Your task to perform on an android device: empty trash in google photos Image 0: 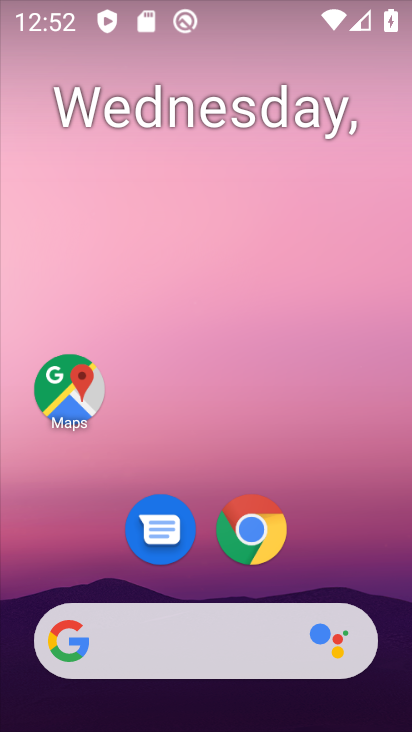
Step 0: drag from (334, 589) to (346, 96)
Your task to perform on an android device: empty trash in google photos Image 1: 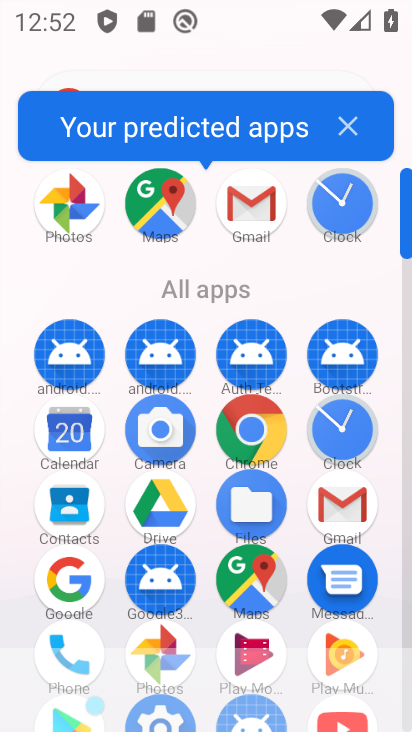
Step 1: drag from (308, 566) to (312, 246)
Your task to perform on an android device: empty trash in google photos Image 2: 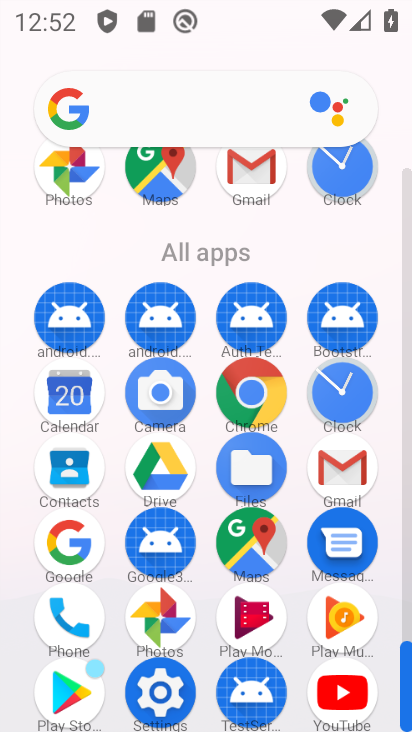
Step 2: click (155, 611)
Your task to perform on an android device: empty trash in google photos Image 3: 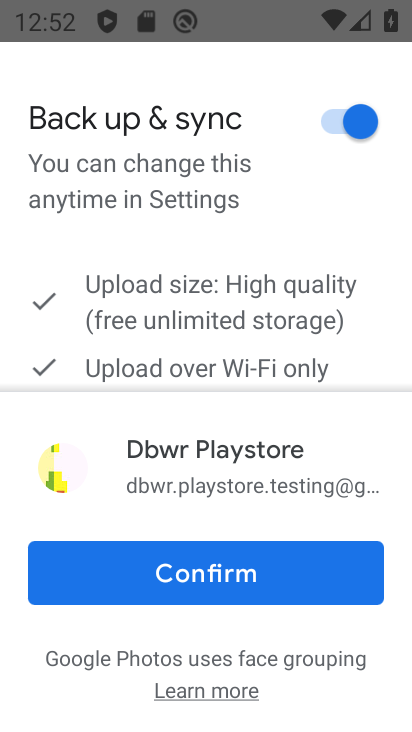
Step 3: click (199, 581)
Your task to perform on an android device: empty trash in google photos Image 4: 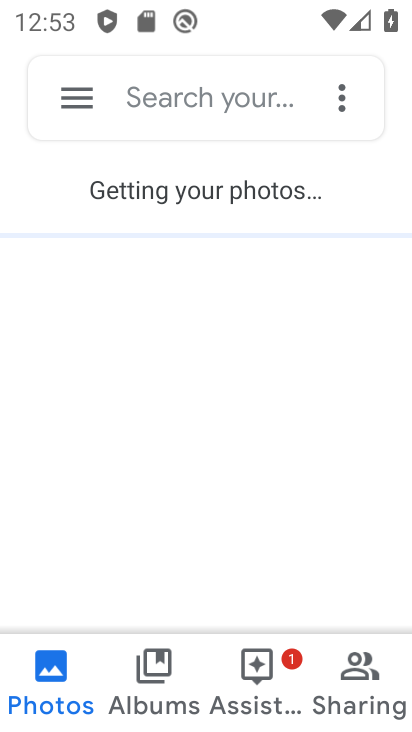
Step 4: click (81, 96)
Your task to perform on an android device: empty trash in google photos Image 5: 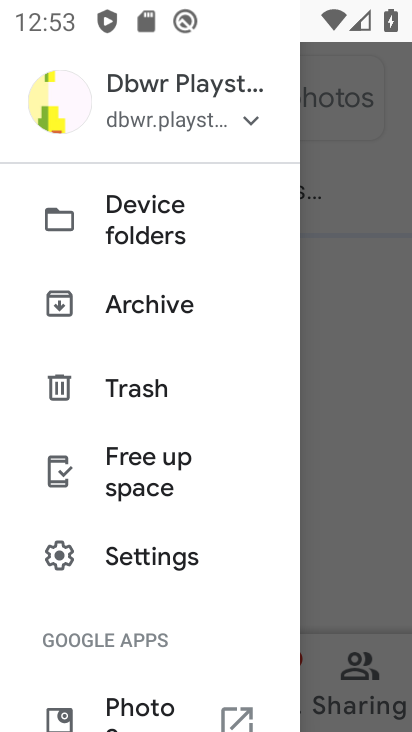
Step 5: click (180, 400)
Your task to perform on an android device: empty trash in google photos Image 6: 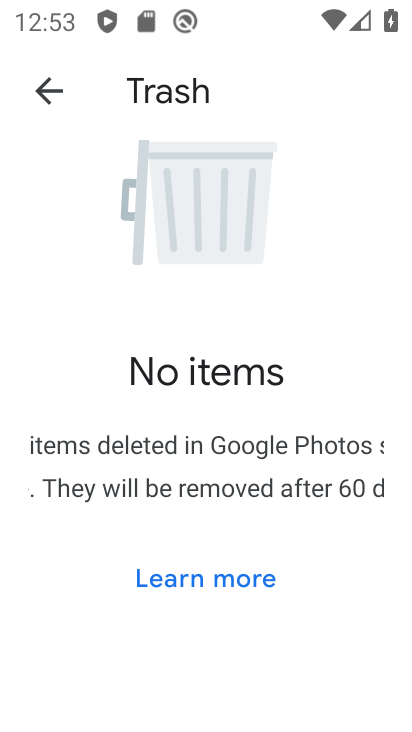
Step 6: task complete